Your task to perform on an android device: delete a single message in the gmail app Image 0: 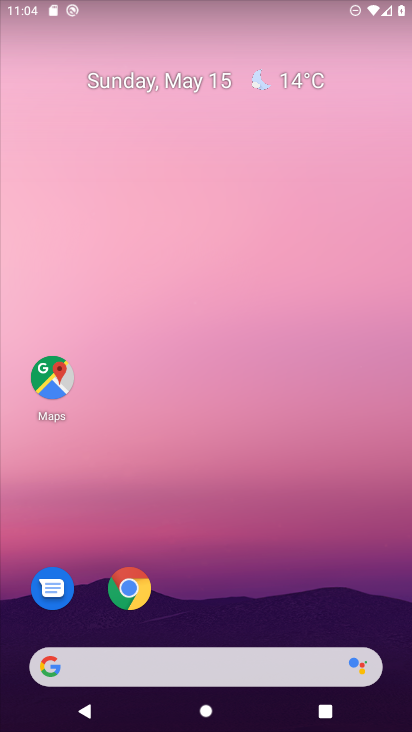
Step 0: drag from (232, 602) to (268, 374)
Your task to perform on an android device: delete a single message in the gmail app Image 1: 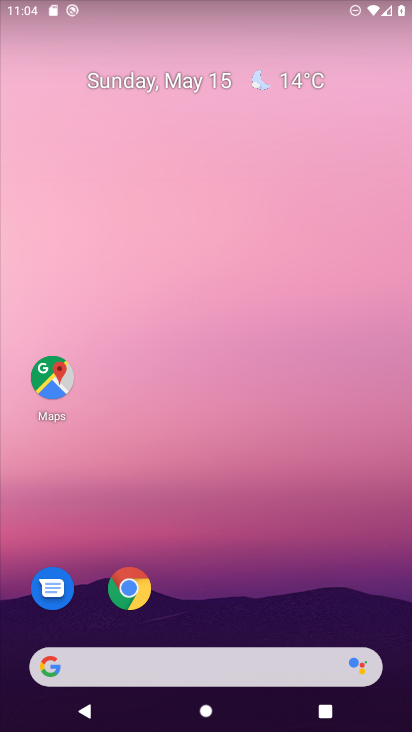
Step 1: drag from (214, 504) to (258, 129)
Your task to perform on an android device: delete a single message in the gmail app Image 2: 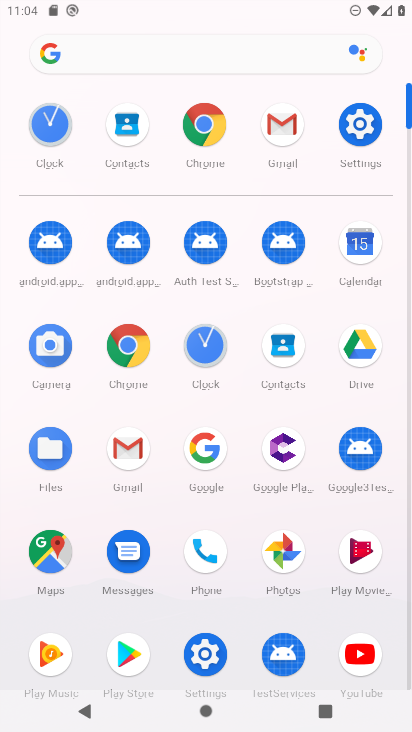
Step 2: click (137, 470)
Your task to perform on an android device: delete a single message in the gmail app Image 3: 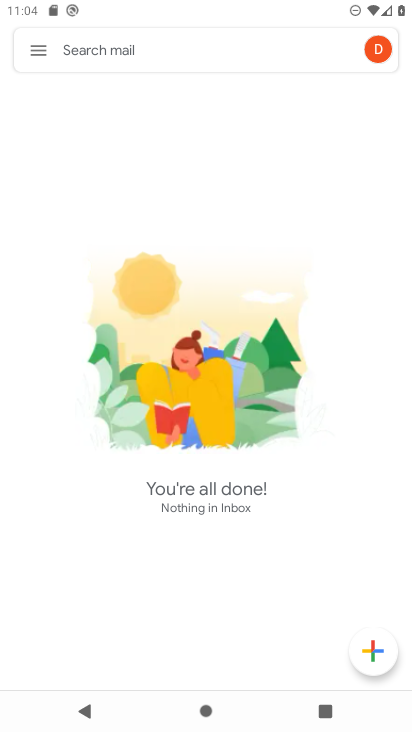
Step 3: click (48, 47)
Your task to perform on an android device: delete a single message in the gmail app Image 4: 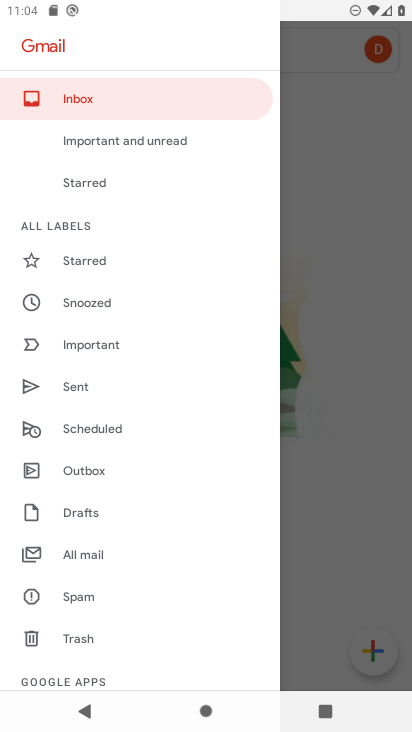
Step 4: click (97, 561)
Your task to perform on an android device: delete a single message in the gmail app Image 5: 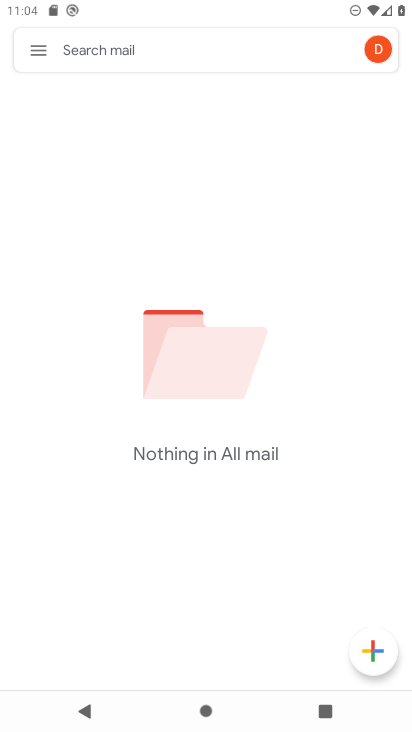
Step 5: task complete